Your task to perform on an android device: Go to eBay Image 0: 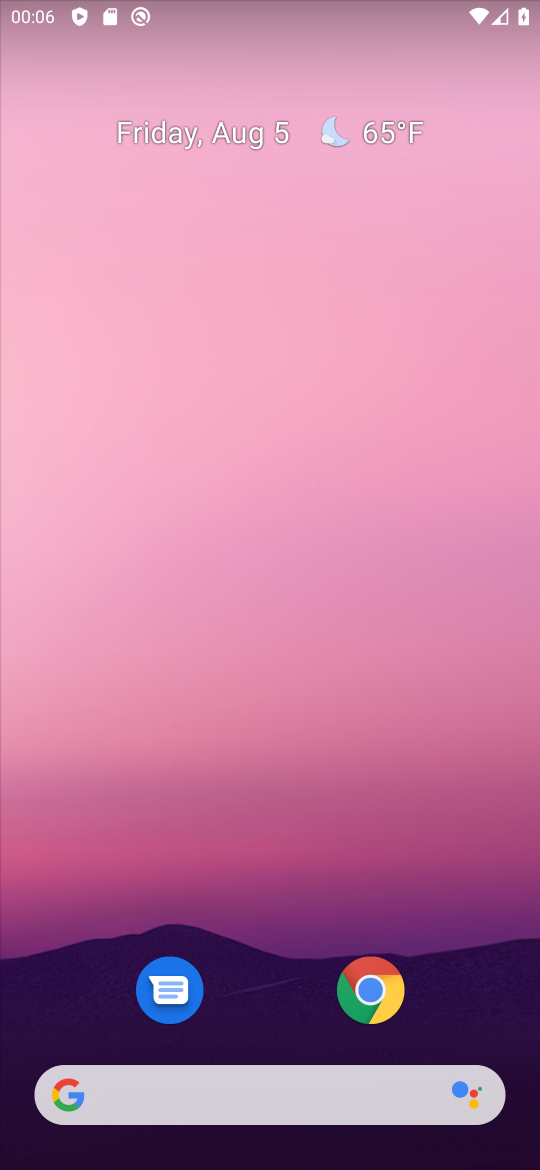
Step 0: click (378, 1005)
Your task to perform on an android device: Go to eBay Image 1: 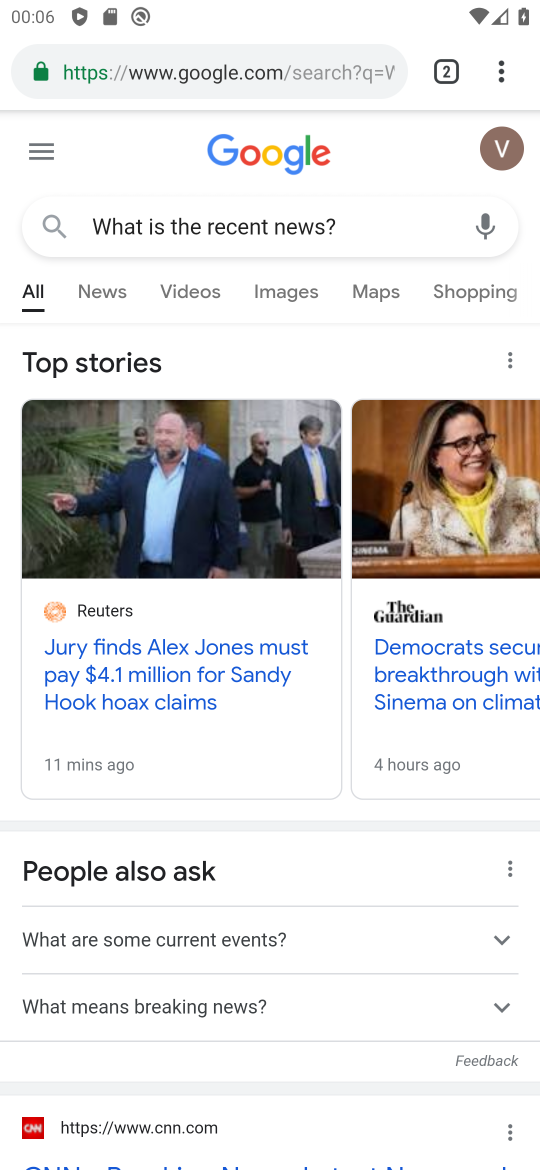
Step 1: click (445, 70)
Your task to perform on an android device: Go to eBay Image 2: 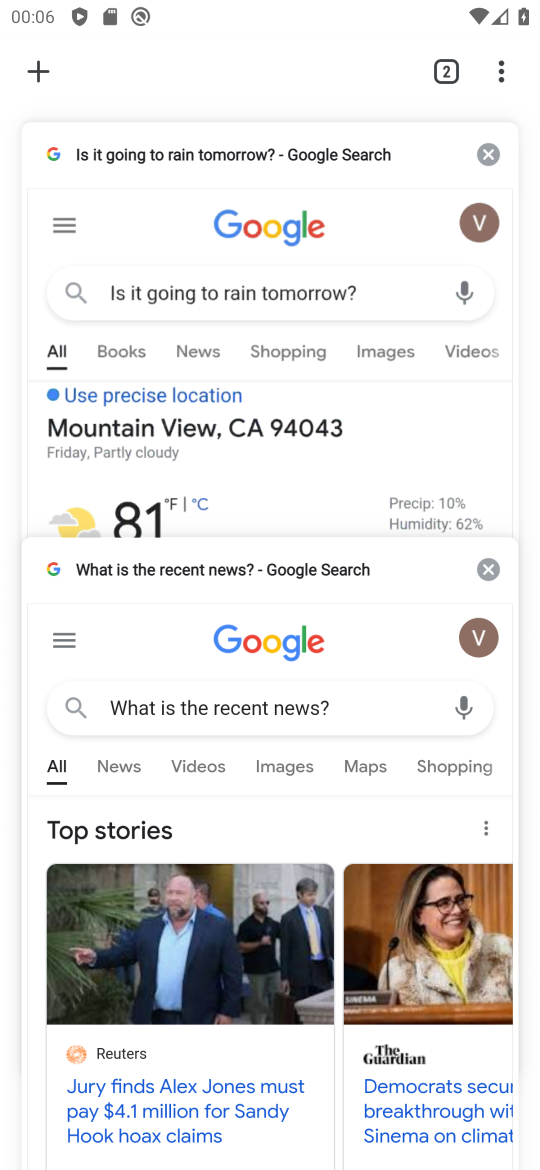
Step 2: click (40, 68)
Your task to perform on an android device: Go to eBay Image 3: 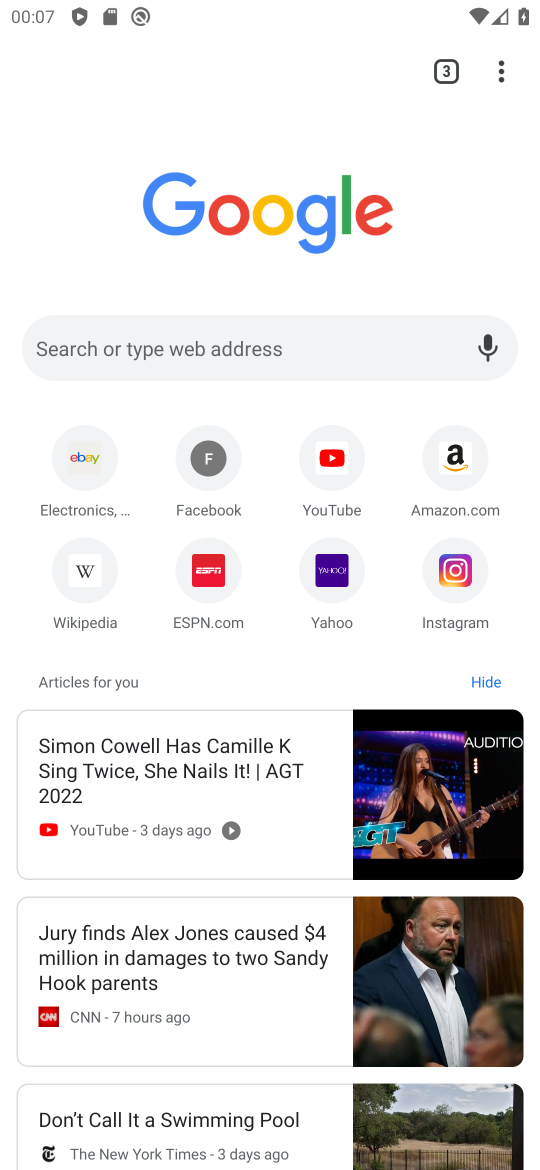
Step 3: click (289, 358)
Your task to perform on an android device: Go to eBay Image 4: 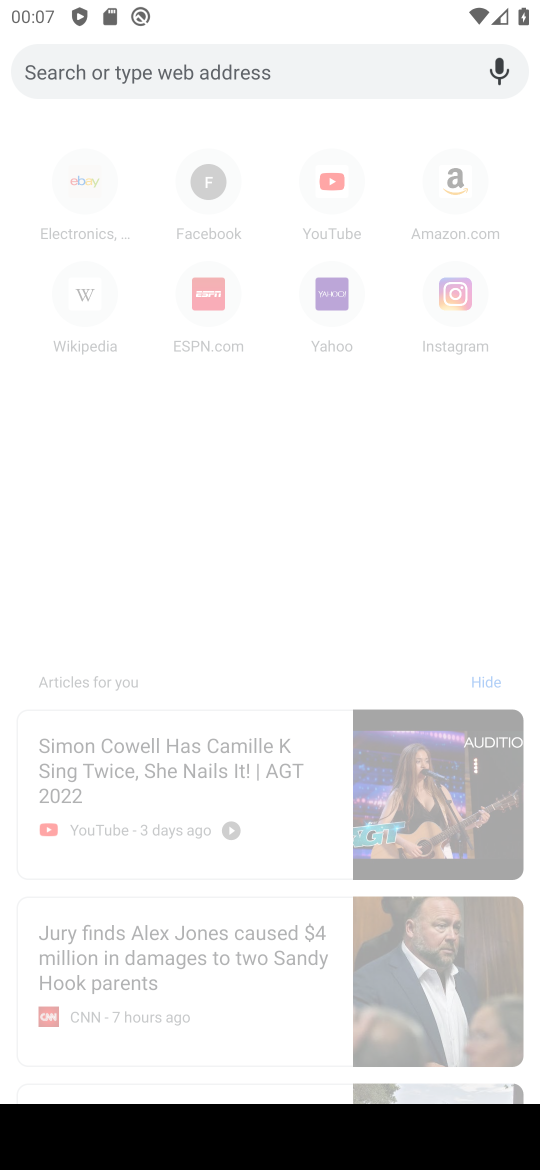
Step 4: type "eBay"
Your task to perform on an android device: Go to eBay Image 5: 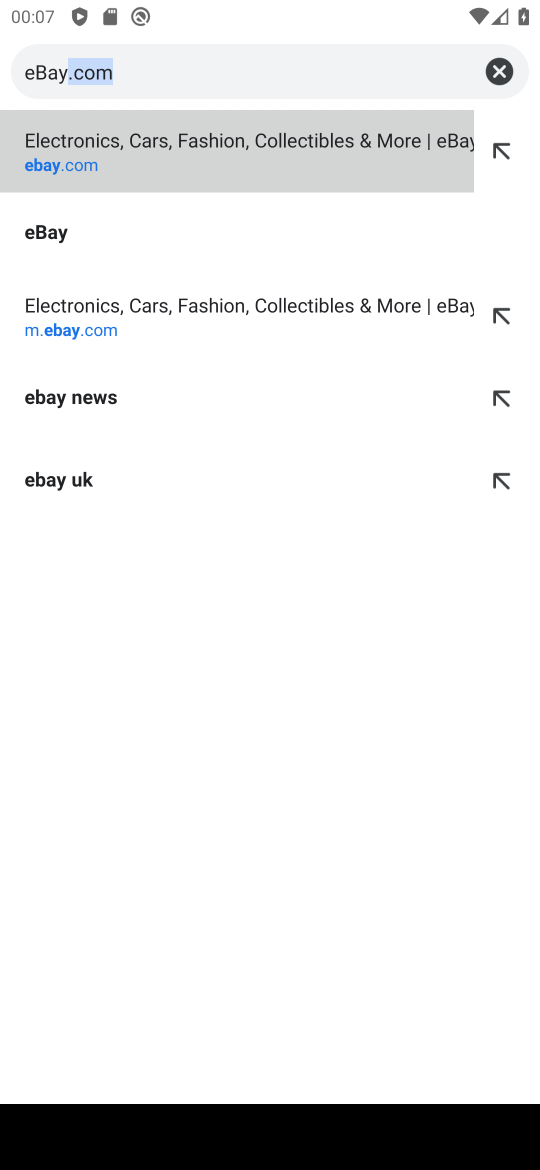
Step 5: click (291, 179)
Your task to perform on an android device: Go to eBay Image 6: 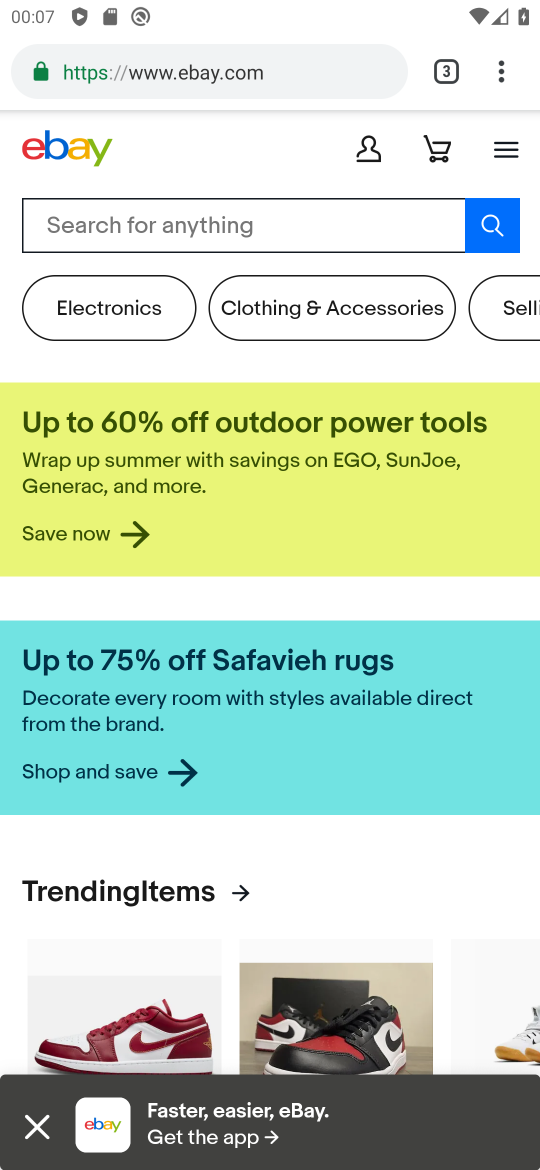
Step 6: task complete